Your task to perform on an android device: turn off translation in the chrome app Image 0: 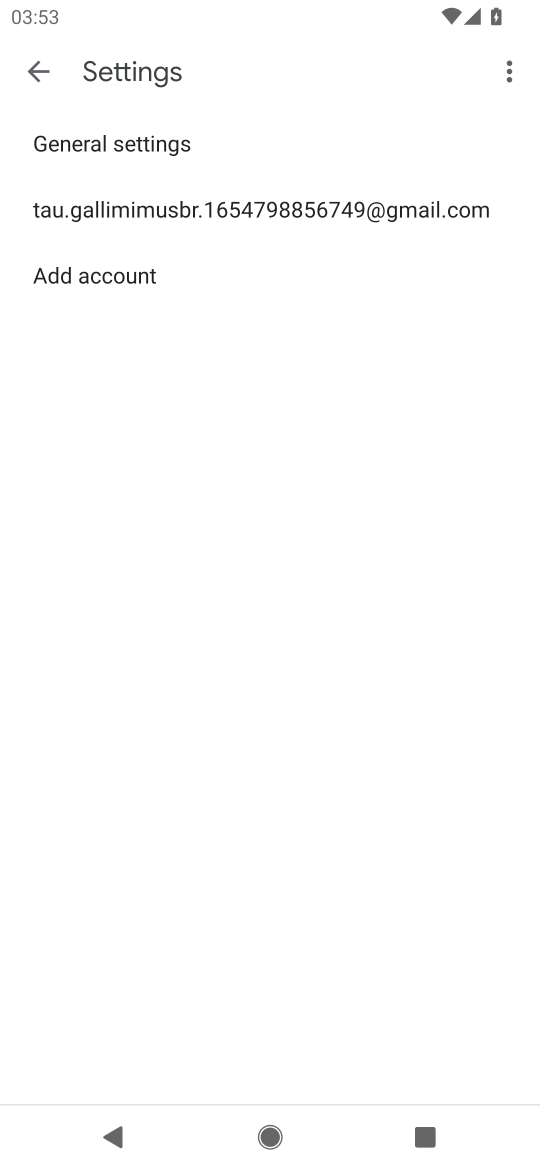
Step 0: press back button
Your task to perform on an android device: turn off translation in the chrome app Image 1: 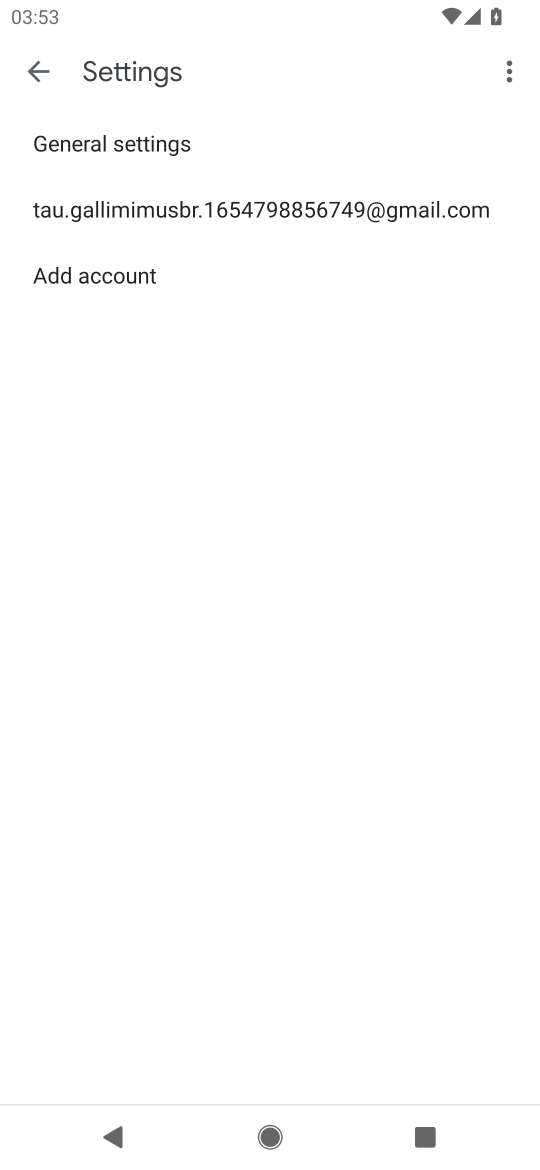
Step 1: press back button
Your task to perform on an android device: turn off translation in the chrome app Image 2: 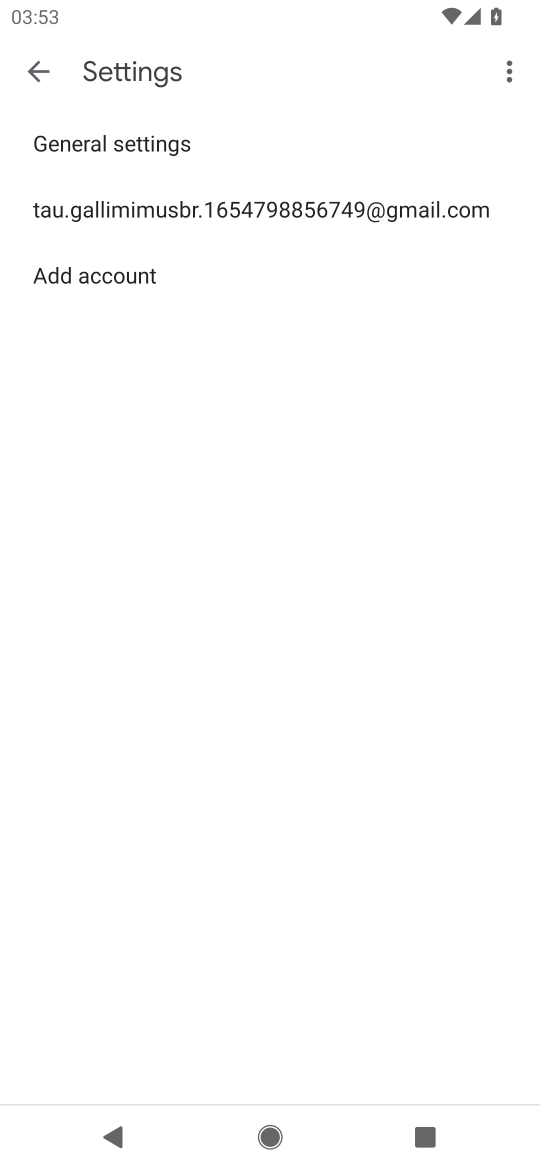
Step 2: press back button
Your task to perform on an android device: turn off translation in the chrome app Image 3: 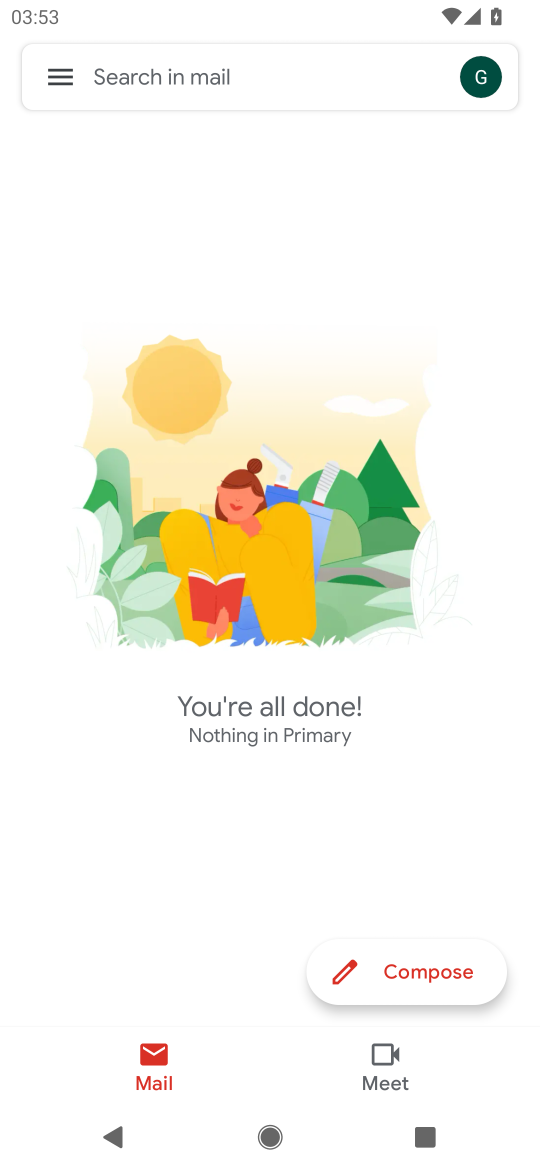
Step 3: press home button
Your task to perform on an android device: turn off translation in the chrome app Image 4: 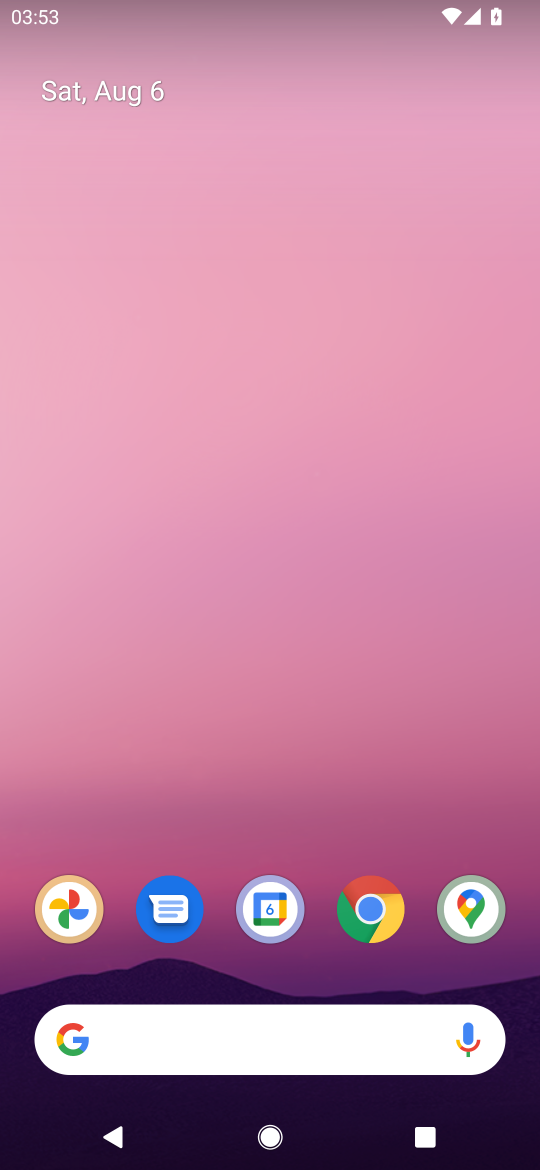
Step 4: click (376, 901)
Your task to perform on an android device: turn off translation in the chrome app Image 5: 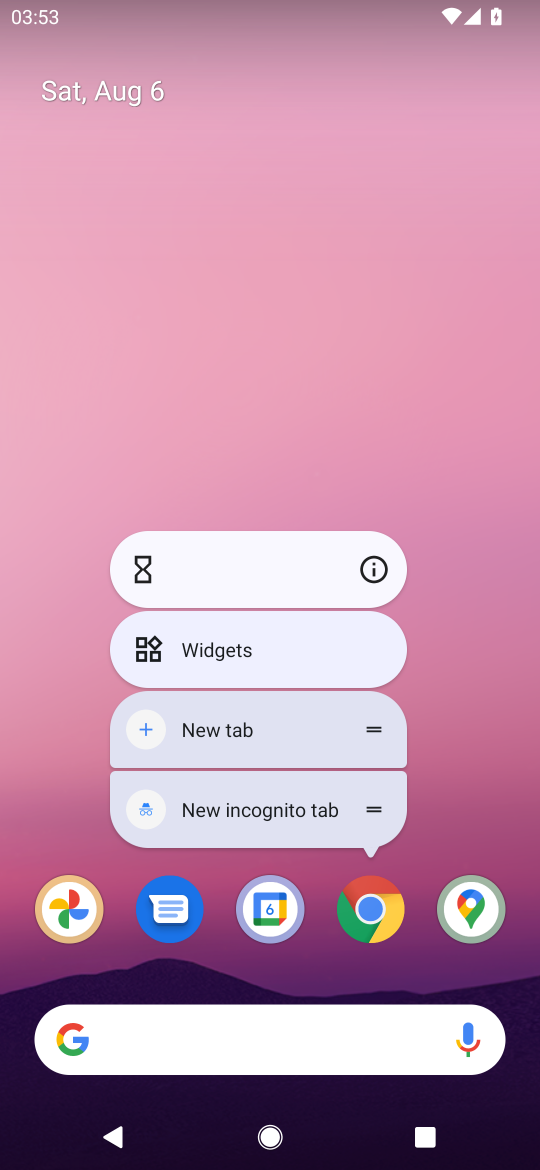
Step 5: click (369, 913)
Your task to perform on an android device: turn off translation in the chrome app Image 6: 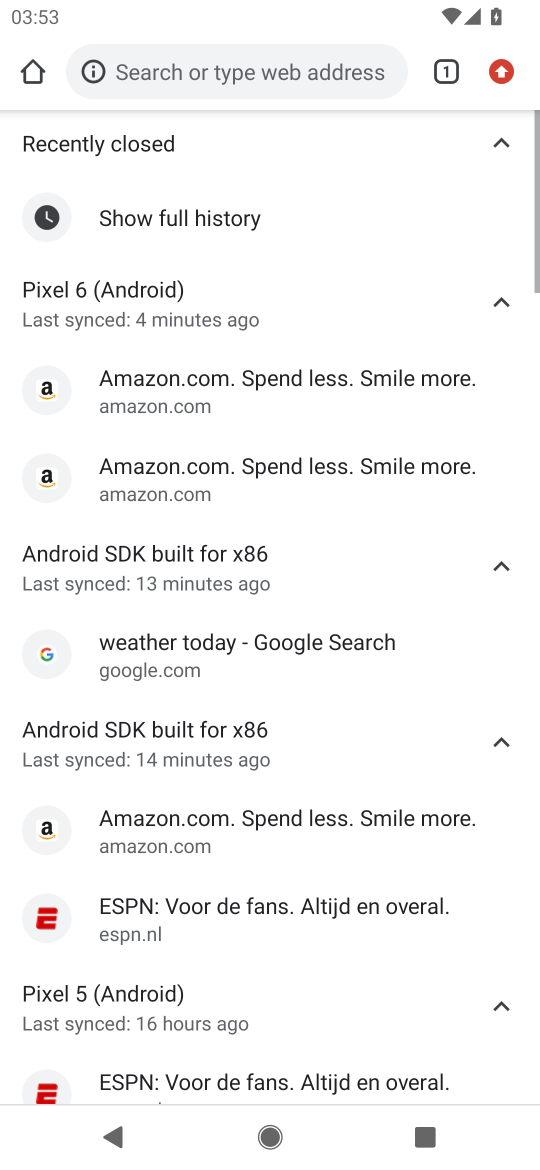
Step 6: drag from (498, 66) to (274, 739)
Your task to perform on an android device: turn off translation in the chrome app Image 7: 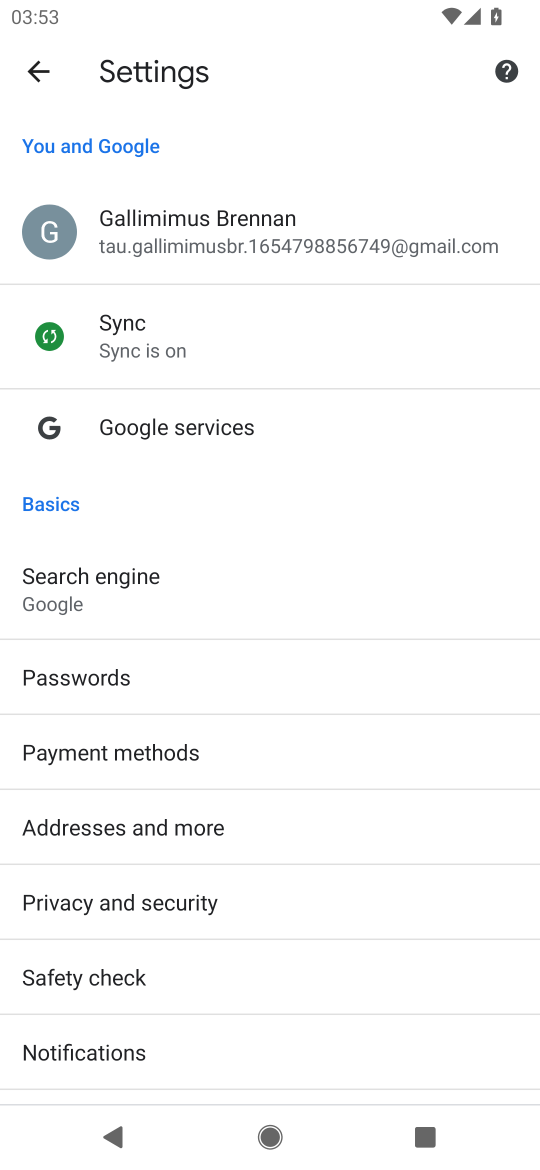
Step 7: drag from (187, 1020) to (342, 313)
Your task to perform on an android device: turn off translation in the chrome app Image 8: 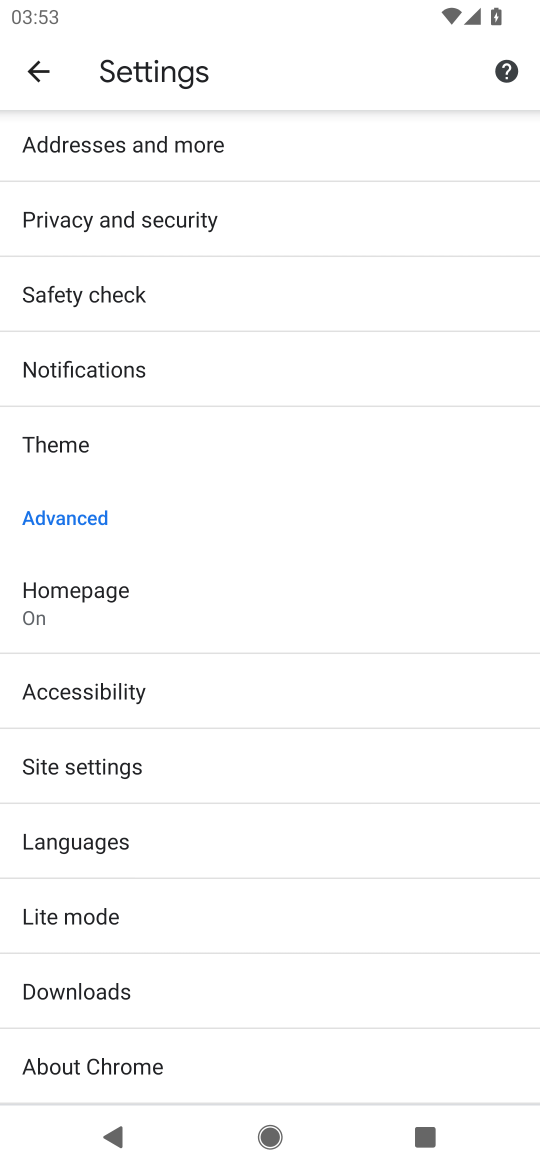
Step 8: click (102, 843)
Your task to perform on an android device: turn off translation in the chrome app Image 9: 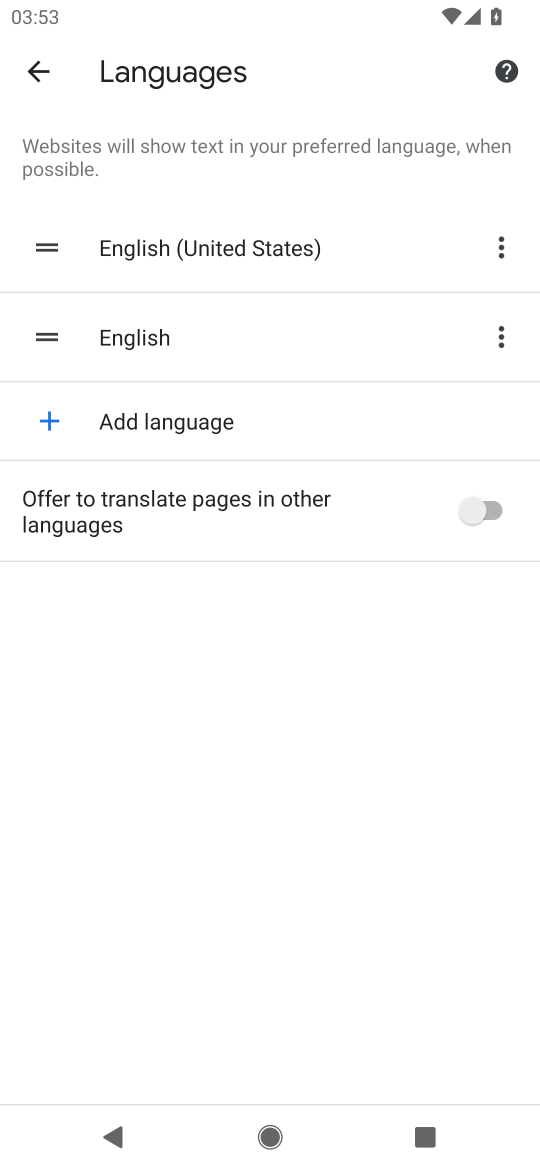
Step 9: task complete